Your task to perform on an android device: Open sound settings Image 0: 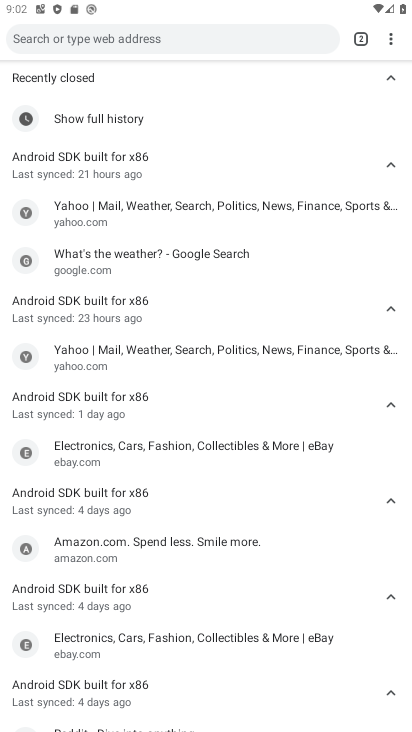
Step 0: press home button
Your task to perform on an android device: Open sound settings Image 1: 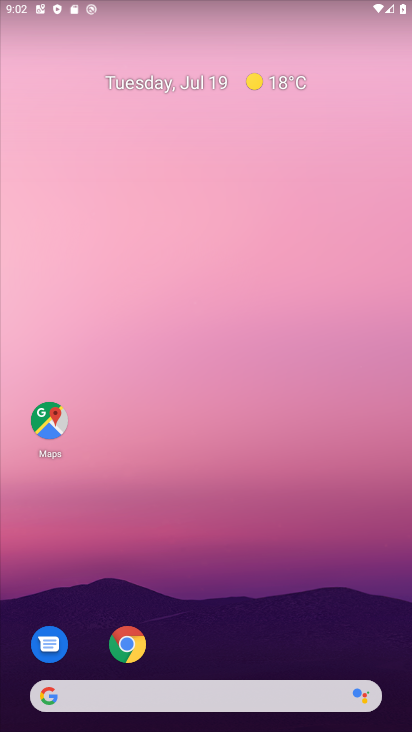
Step 1: drag from (230, 303) to (236, 97)
Your task to perform on an android device: Open sound settings Image 2: 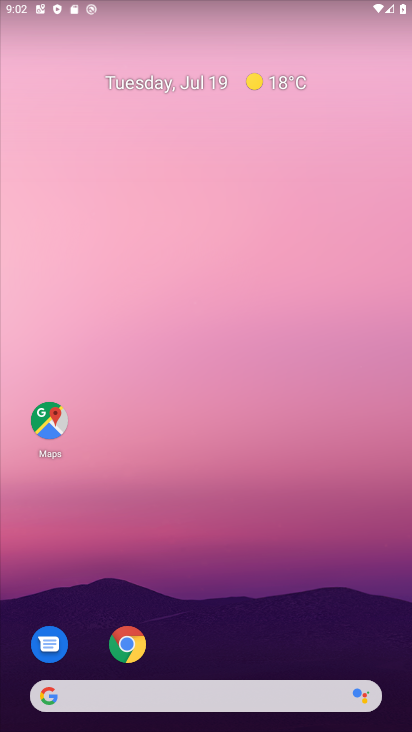
Step 2: drag from (209, 698) to (233, 132)
Your task to perform on an android device: Open sound settings Image 3: 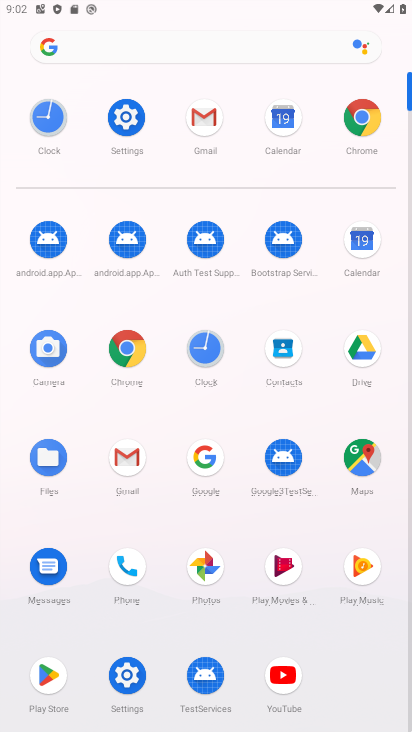
Step 3: click (115, 118)
Your task to perform on an android device: Open sound settings Image 4: 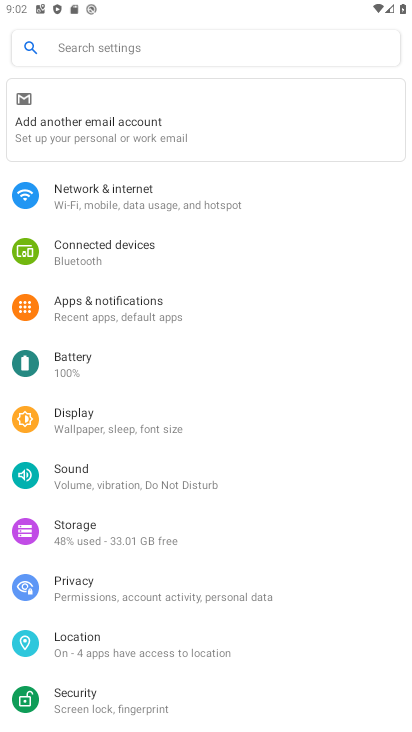
Step 4: click (73, 479)
Your task to perform on an android device: Open sound settings Image 5: 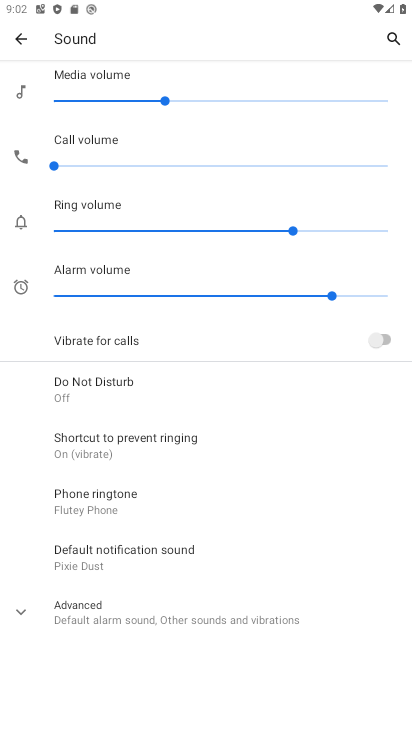
Step 5: task complete